Your task to perform on an android device: check google app version Image 0: 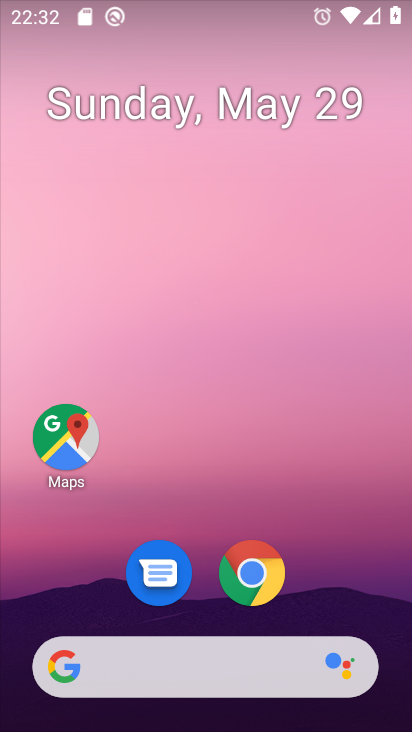
Step 0: click (217, 657)
Your task to perform on an android device: check google app version Image 1: 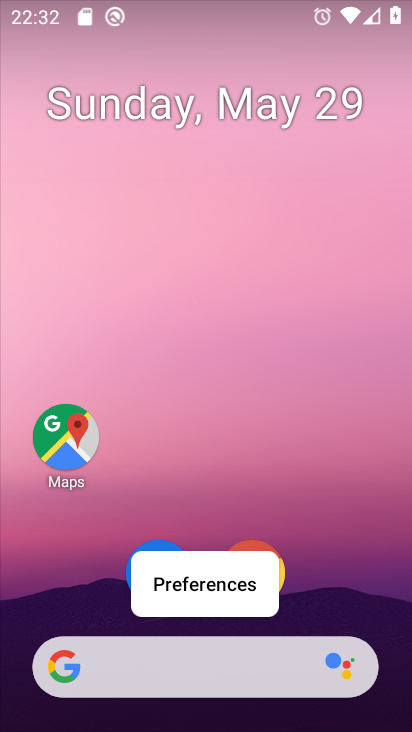
Step 1: click (193, 671)
Your task to perform on an android device: check google app version Image 2: 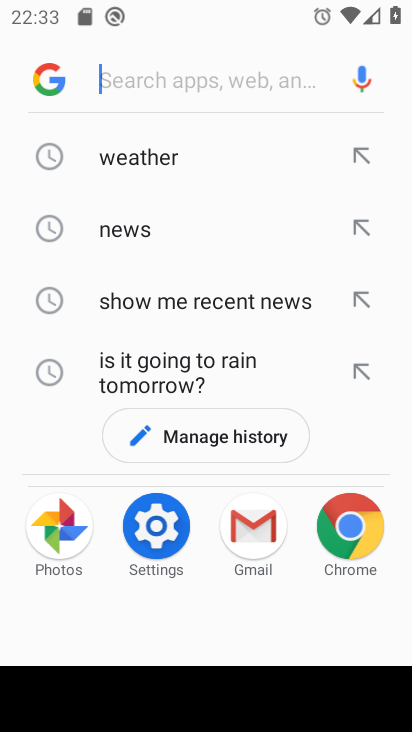
Step 2: click (53, 83)
Your task to perform on an android device: check google app version Image 3: 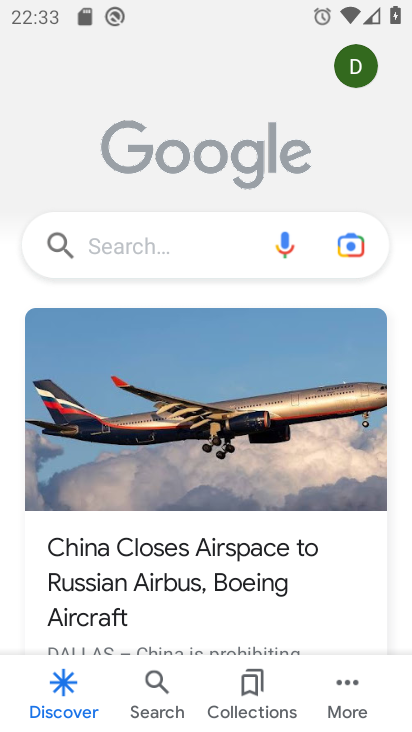
Step 3: drag from (260, 478) to (252, 180)
Your task to perform on an android device: check google app version Image 4: 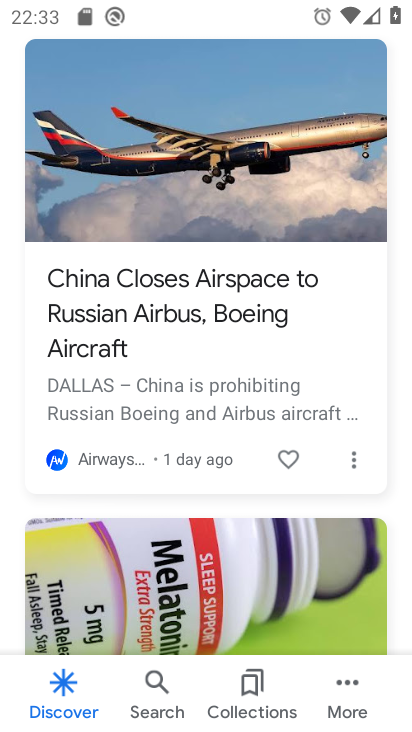
Step 4: drag from (198, 578) to (228, 126)
Your task to perform on an android device: check google app version Image 5: 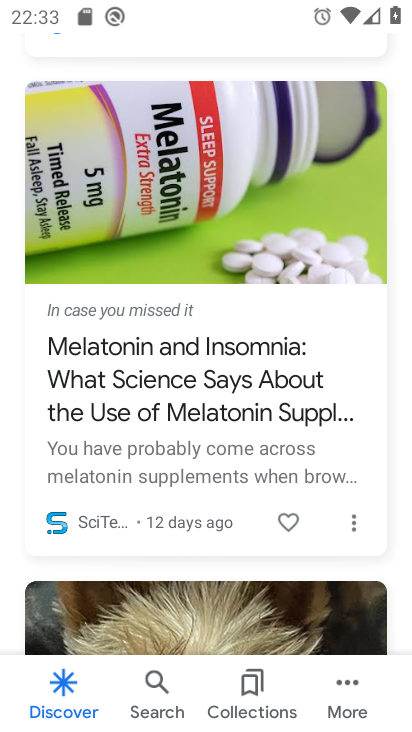
Step 5: drag from (197, 554) to (224, 225)
Your task to perform on an android device: check google app version Image 6: 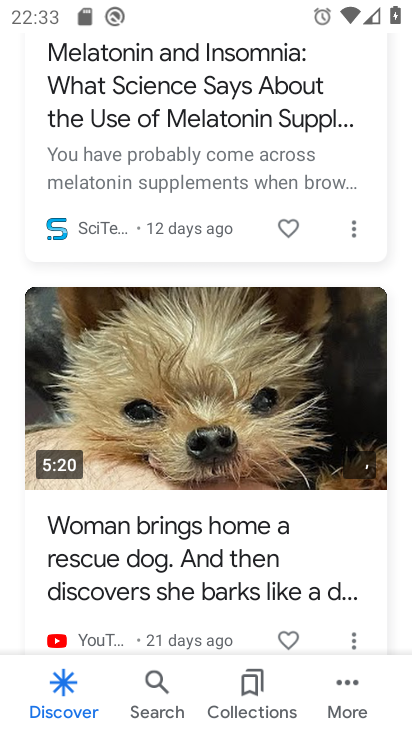
Step 6: click (349, 691)
Your task to perform on an android device: check google app version Image 7: 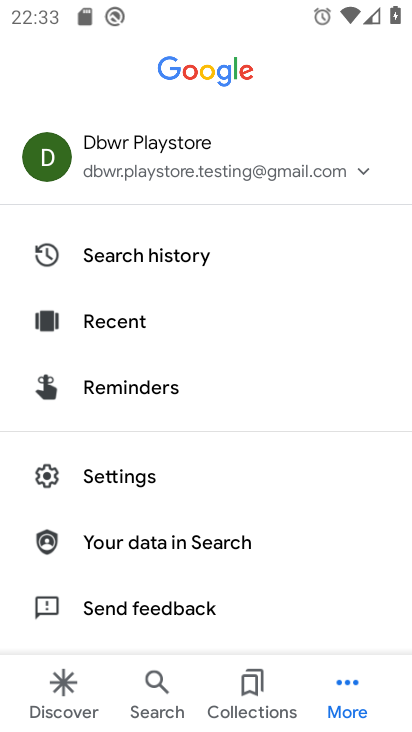
Step 7: click (349, 678)
Your task to perform on an android device: check google app version Image 8: 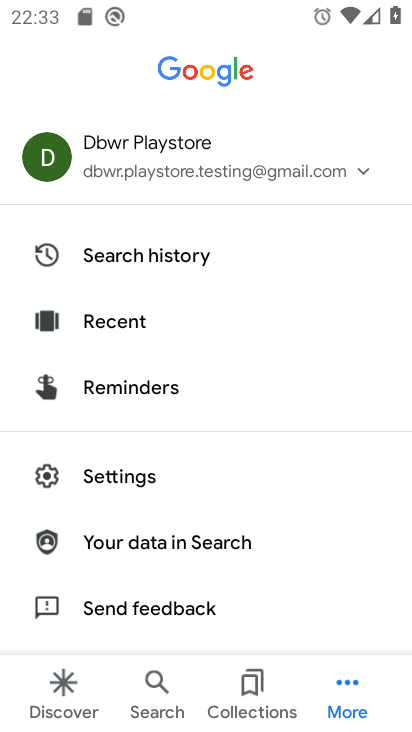
Step 8: click (151, 468)
Your task to perform on an android device: check google app version Image 9: 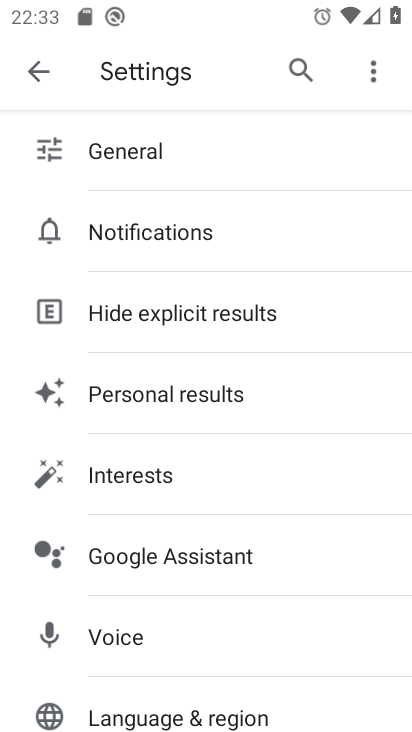
Step 9: drag from (189, 598) to (200, 308)
Your task to perform on an android device: check google app version Image 10: 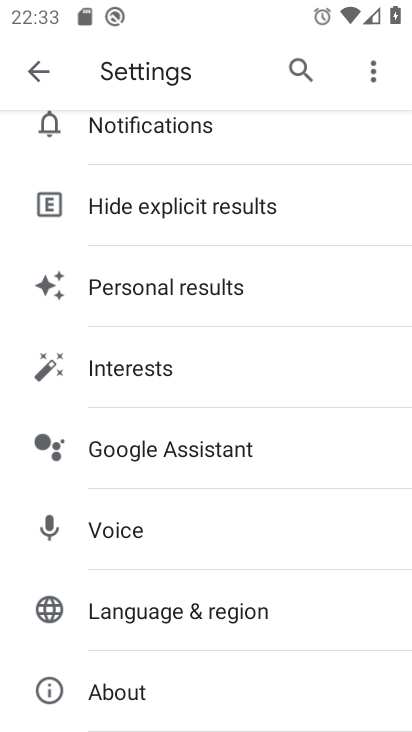
Step 10: click (128, 690)
Your task to perform on an android device: check google app version Image 11: 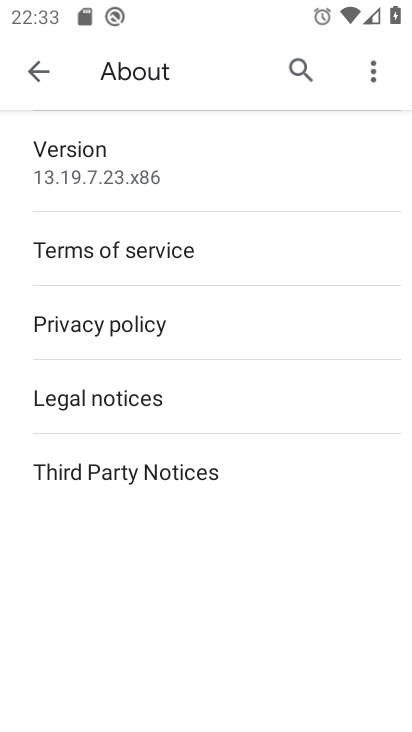
Step 11: task complete